Your task to perform on an android device: turn off location Image 0: 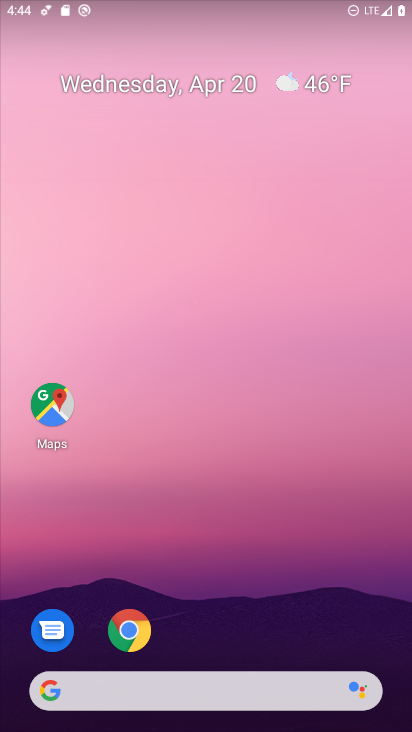
Step 0: drag from (302, 654) to (323, 112)
Your task to perform on an android device: turn off location Image 1: 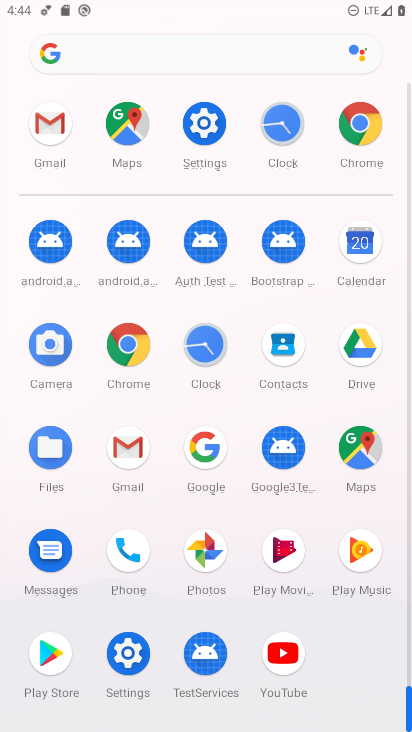
Step 1: click (132, 662)
Your task to perform on an android device: turn off location Image 2: 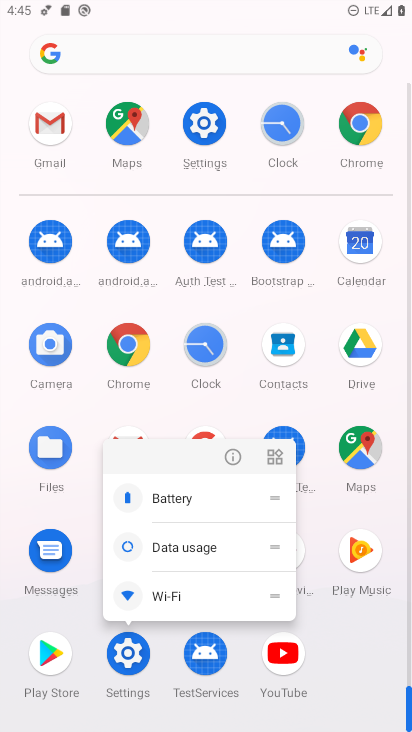
Step 2: click (118, 657)
Your task to perform on an android device: turn off location Image 3: 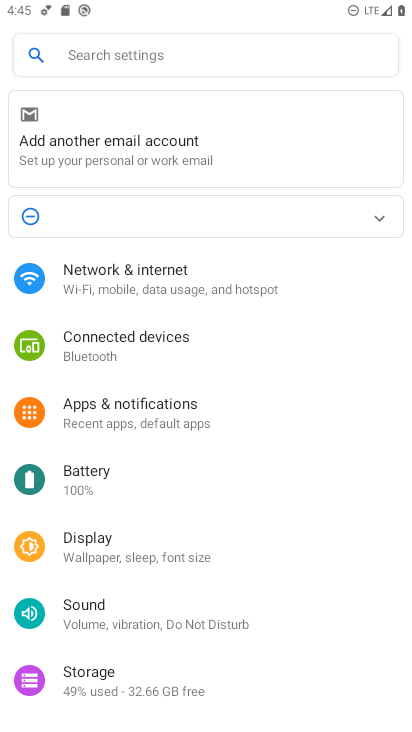
Step 3: drag from (159, 589) to (201, 246)
Your task to perform on an android device: turn off location Image 4: 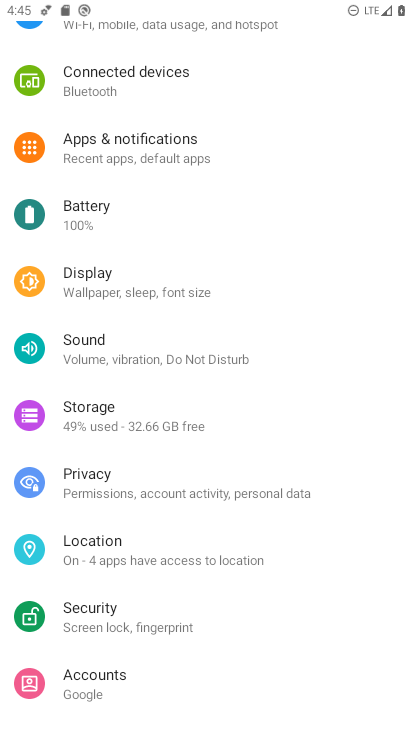
Step 4: click (183, 537)
Your task to perform on an android device: turn off location Image 5: 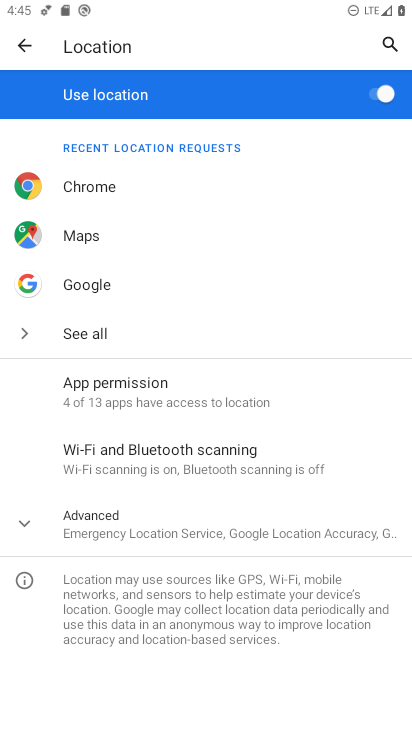
Step 5: click (372, 96)
Your task to perform on an android device: turn off location Image 6: 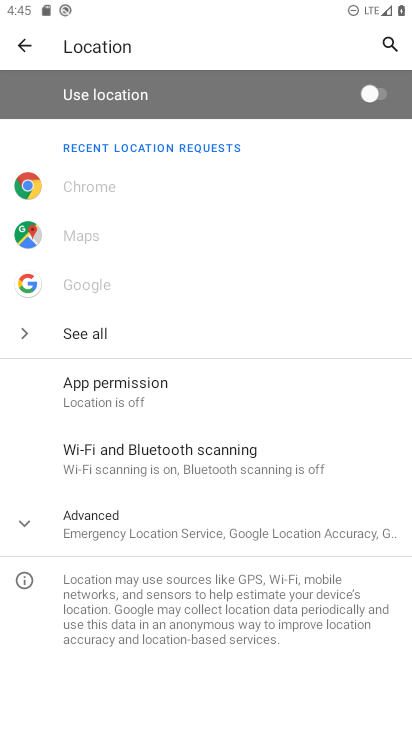
Step 6: task complete